Your task to perform on an android device: uninstall "Adobe Acrobat Reader" Image 0: 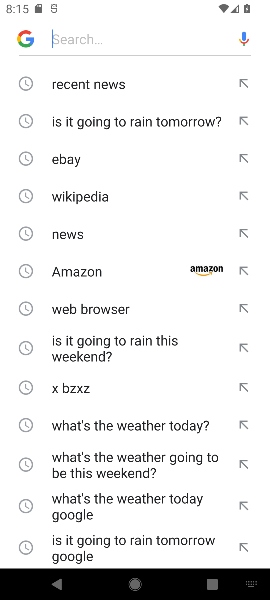
Step 0: press home button
Your task to perform on an android device: uninstall "Adobe Acrobat Reader" Image 1: 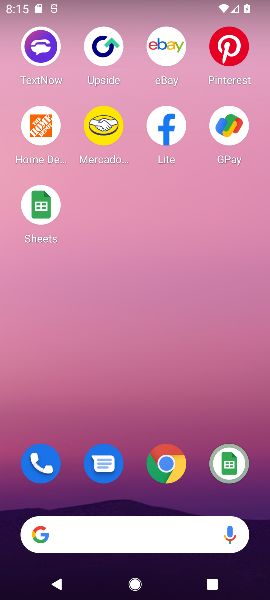
Step 1: drag from (145, 502) to (78, 0)
Your task to perform on an android device: uninstall "Adobe Acrobat Reader" Image 2: 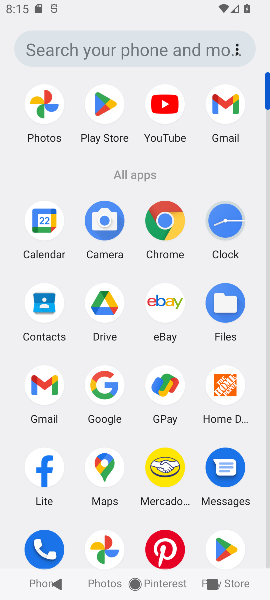
Step 2: click (107, 107)
Your task to perform on an android device: uninstall "Adobe Acrobat Reader" Image 3: 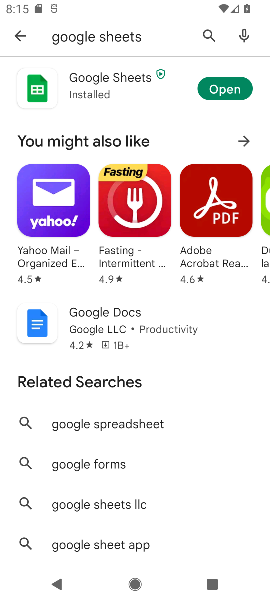
Step 3: click (18, 30)
Your task to perform on an android device: uninstall "Adobe Acrobat Reader" Image 4: 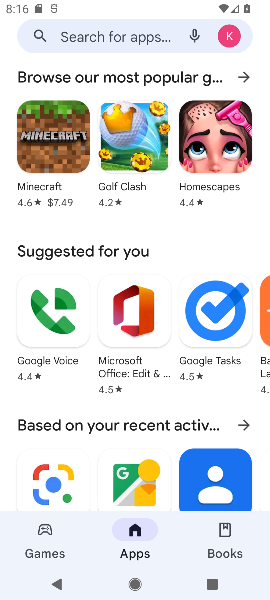
Step 4: click (102, 28)
Your task to perform on an android device: uninstall "Adobe Acrobat Reader" Image 5: 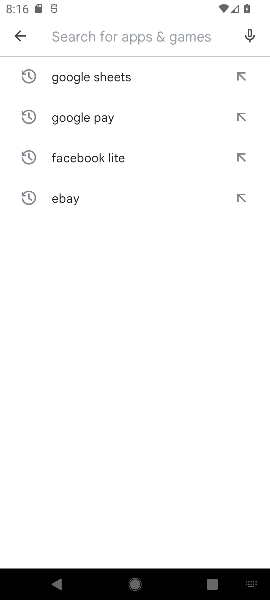
Step 5: type "Adobe Acrobat Reader"
Your task to perform on an android device: uninstall "Adobe Acrobat Reader" Image 6: 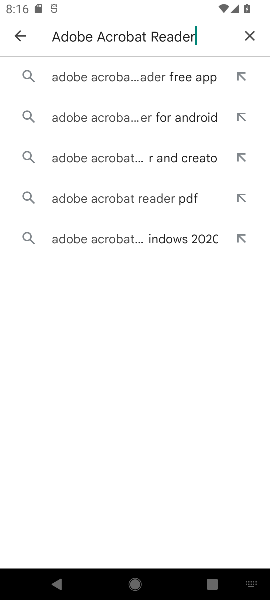
Step 6: click (121, 79)
Your task to perform on an android device: uninstall "Adobe Acrobat Reader" Image 7: 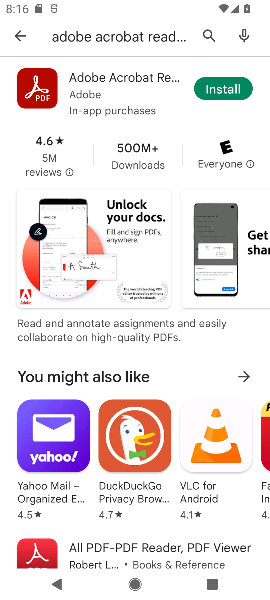
Step 7: click (212, 89)
Your task to perform on an android device: uninstall "Adobe Acrobat Reader" Image 8: 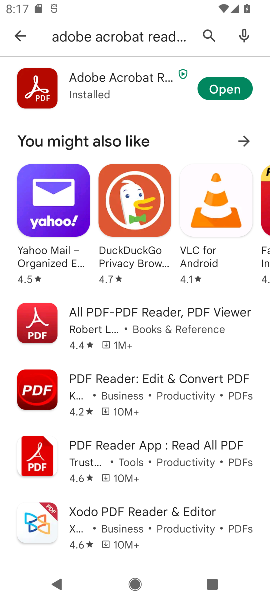
Step 8: click (98, 88)
Your task to perform on an android device: uninstall "Adobe Acrobat Reader" Image 9: 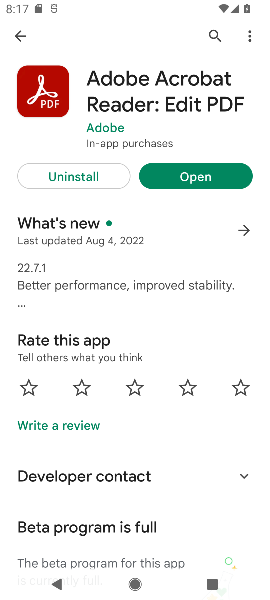
Step 9: click (46, 183)
Your task to perform on an android device: uninstall "Adobe Acrobat Reader" Image 10: 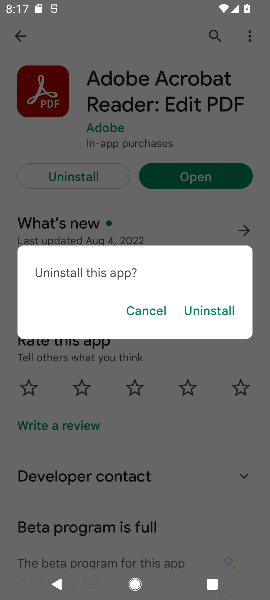
Step 10: click (207, 311)
Your task to perform on an android device: uninstall "Adobe Acrobat Reader" Image 11: 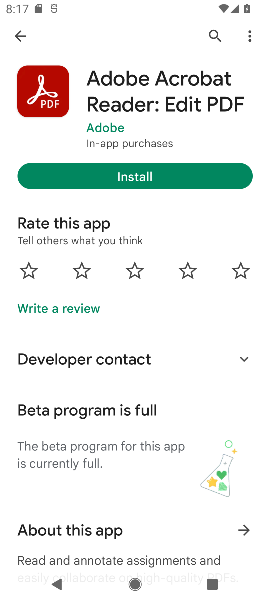
Step 11: task complete